Your task to perform on an android device: Add razer huntsman to the cart on walmart, then select checkout. Image 0: 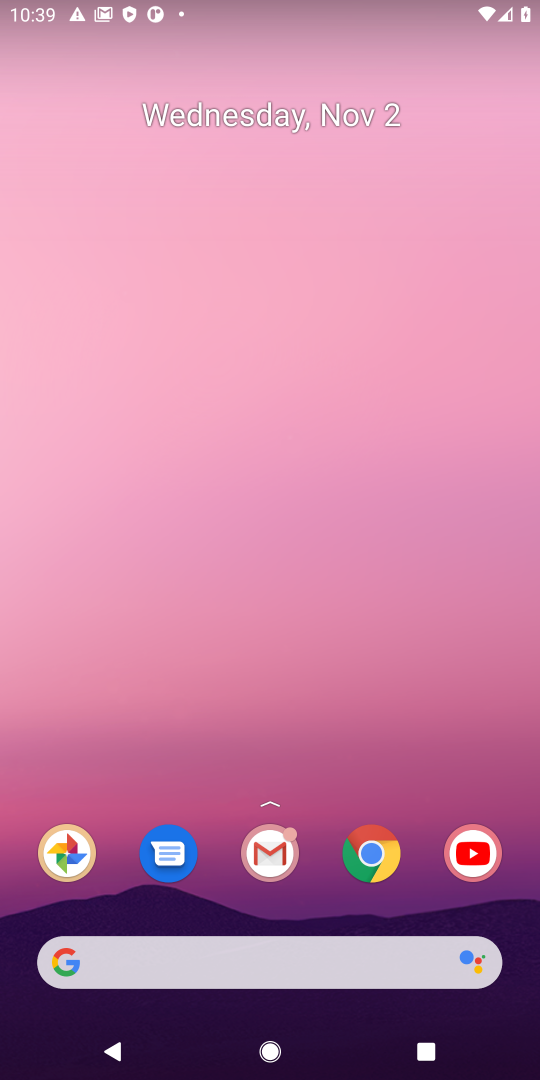
Step 0: click (368, 847)
Your task to perform on an android device: Add razer huntsman to the cart on walmart, then select checkout. Image 1: 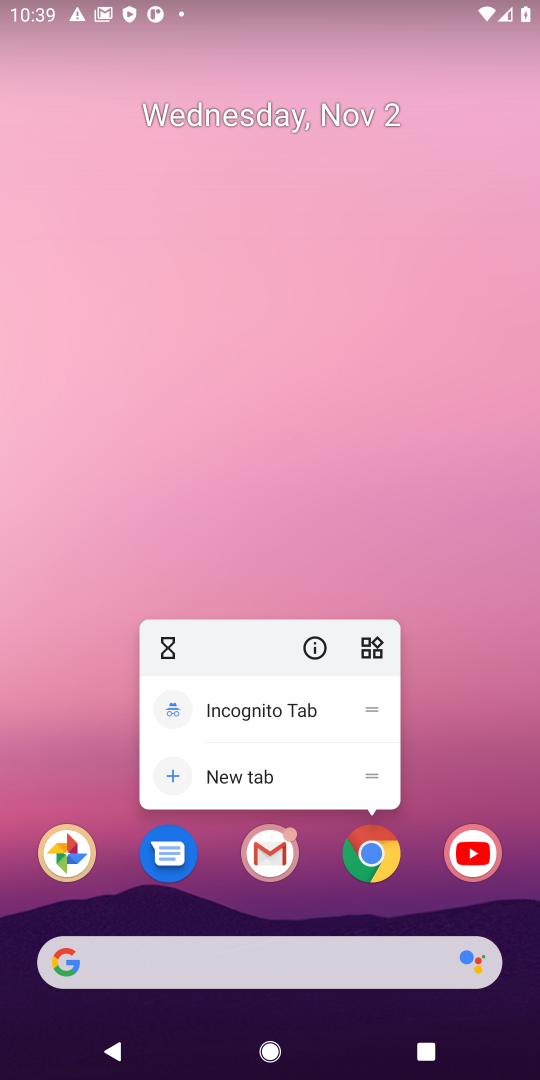
Step 1: click (368, 847)
Your task to perform on an android device: Add razer huntsman to the cart on walmart, then select checkout. Image 2: 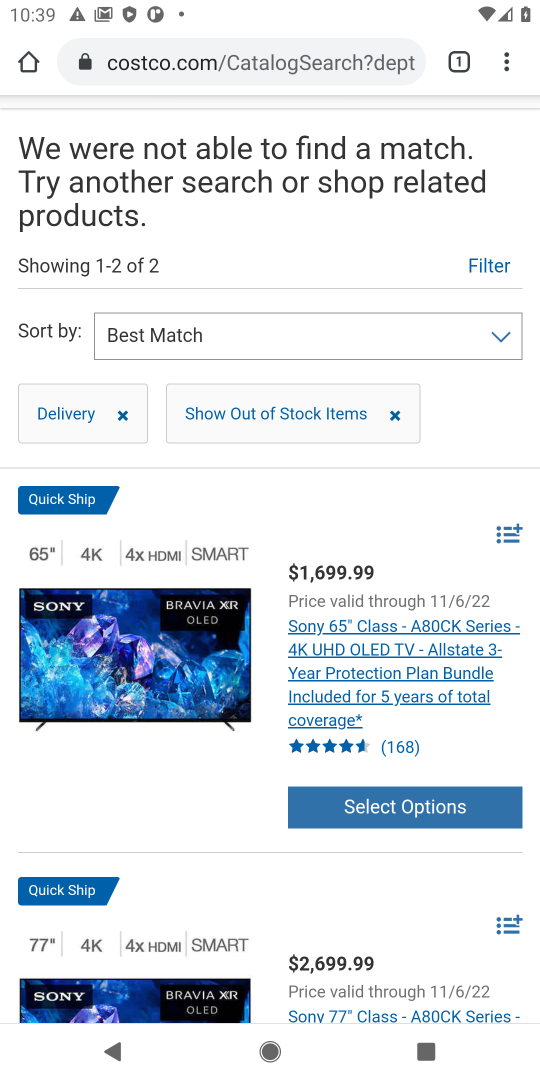
Step 2: click (288, 69)
Your task to perform on an android device: Add razer huntsman to the cart on walmart, then select checkout. Image 3: 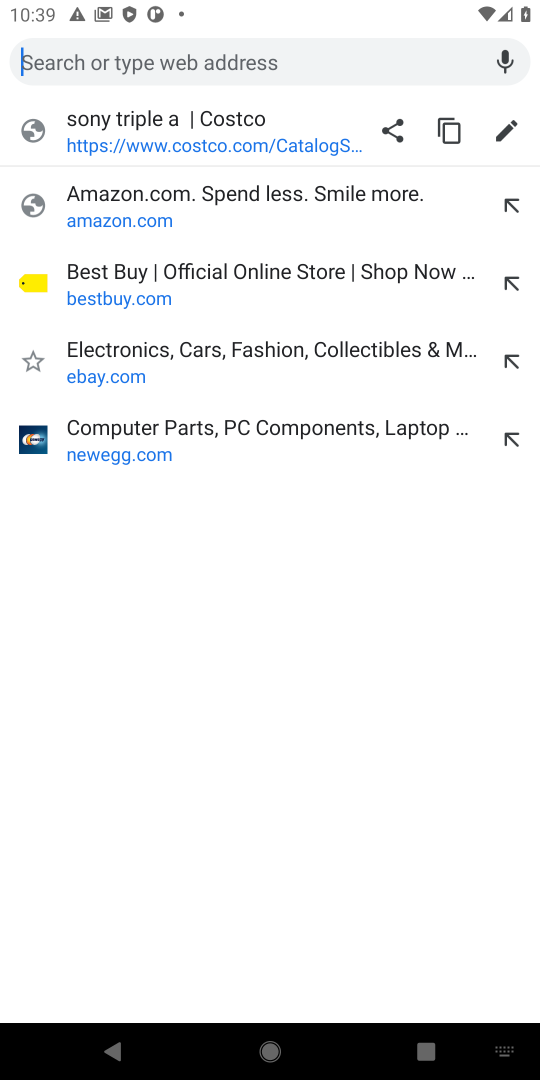
Step 3: type "walmart"
Your task to perform on an android device: Add razer huntsman to the cart on walmart, then select checkout. Image 4: 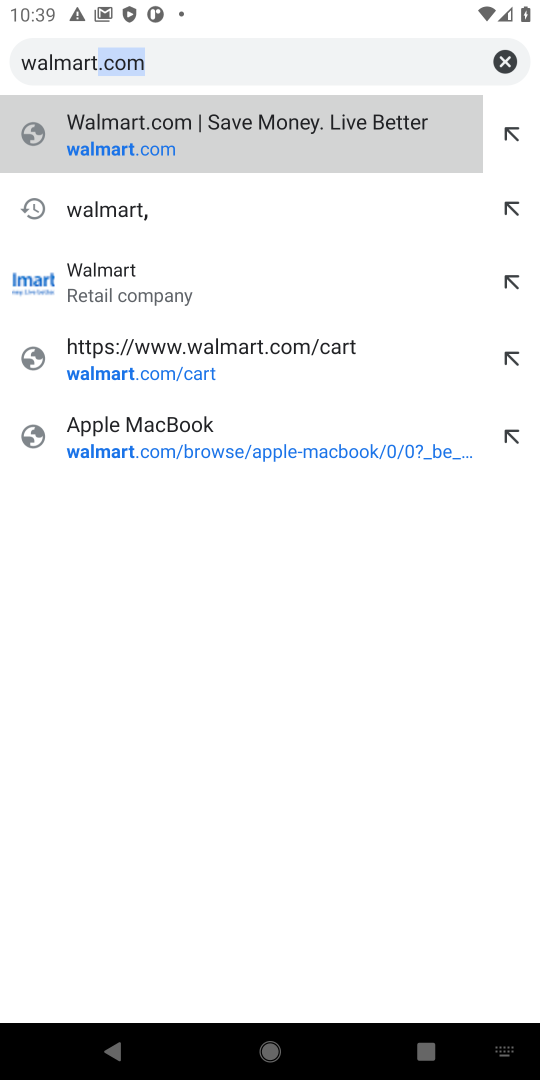
Step 4: press enter
Your task to perform on an android device: Add razer huntsman to the cart on walmart, then select checkout. Image 5: 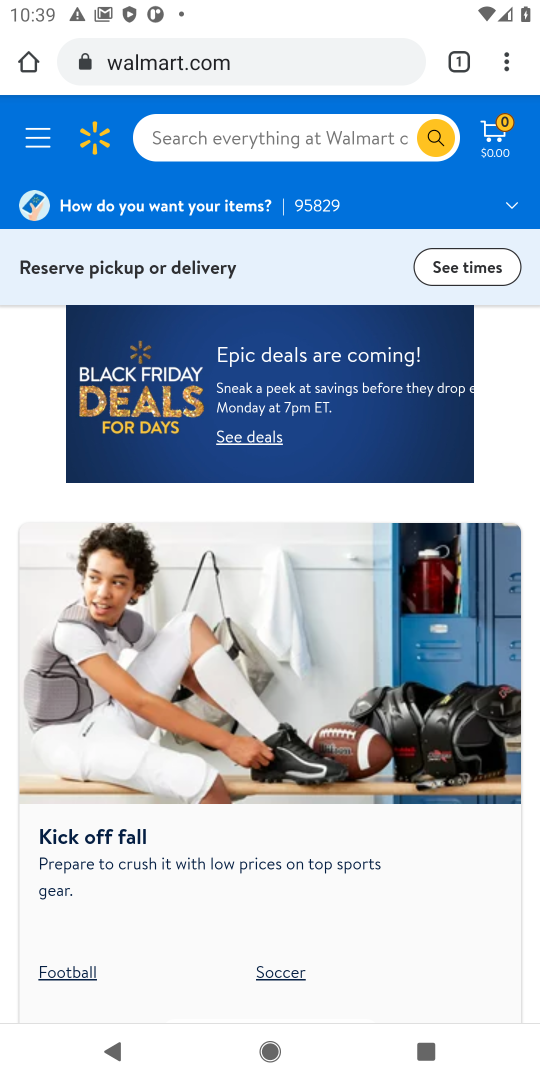
Step 5: click (346, 129)
Your task to perform on an android device: Add razer huntsman to the cart on walmart, then select checkout. Image 6: 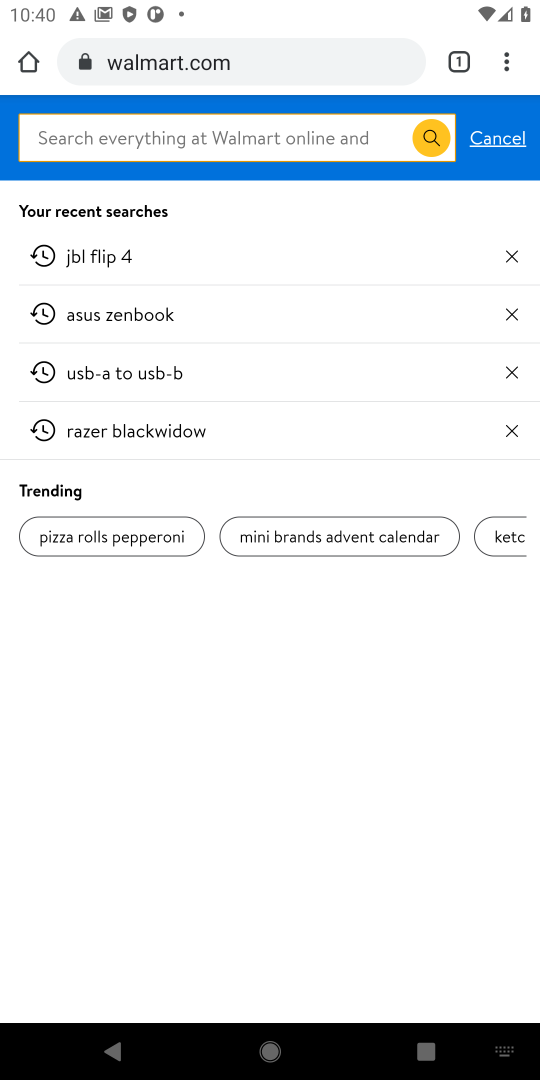
Step 6: type "razer huntsman"
Your task to perform on an android device: Add razer huntsman to the cart on walmart, then select checkout. Image 7: 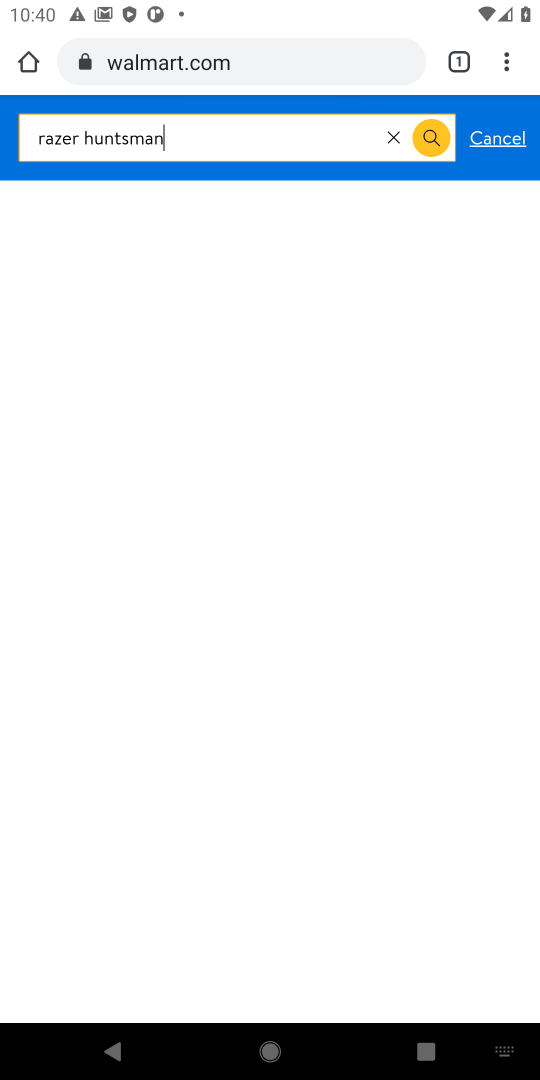
Step 7: press enter
Your task to perform on an android device: Add razer huntsman to the cart on walmart, then select checkout. Image 8: 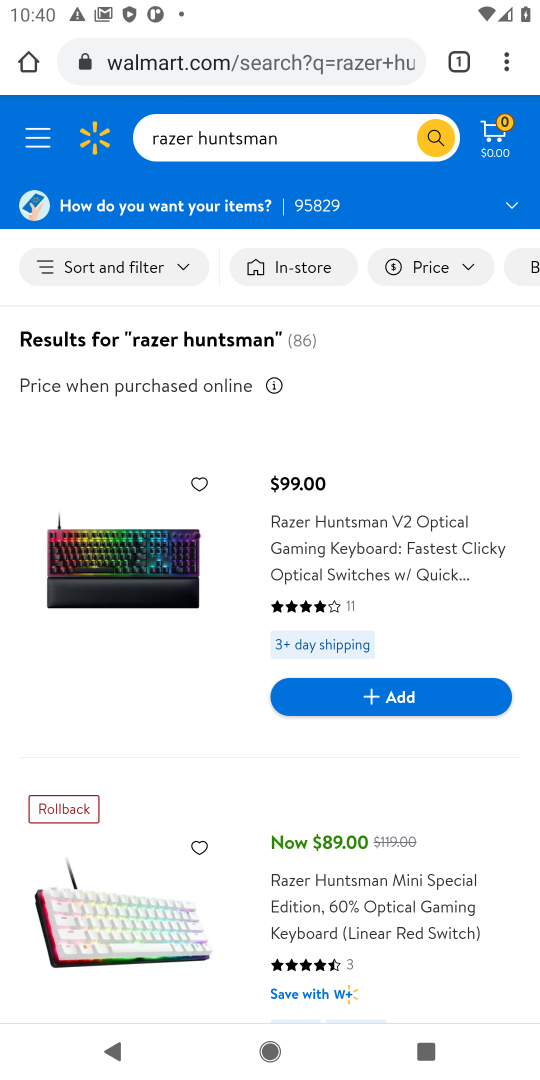
Step 8: click (350, 545)
Your task to perform on an android device: Add razer huntsman to the cart on walmart, then select checkout. Image 9: 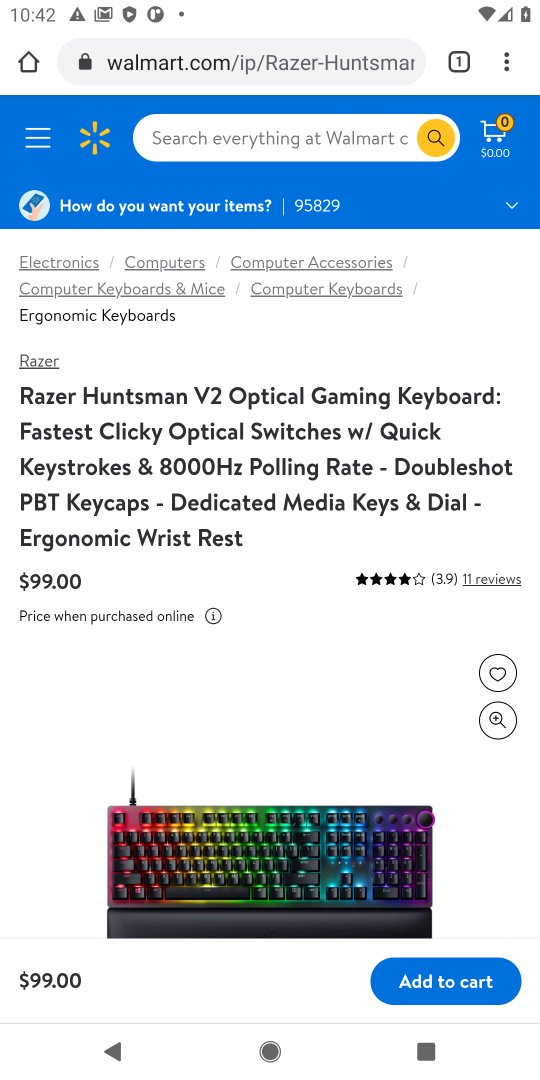
Step 9: drag from (166, 747) to (361, 329)
Your task to perform on an android device: Add razer huntsman to the cart on walmart, then select checkout. Image 10: 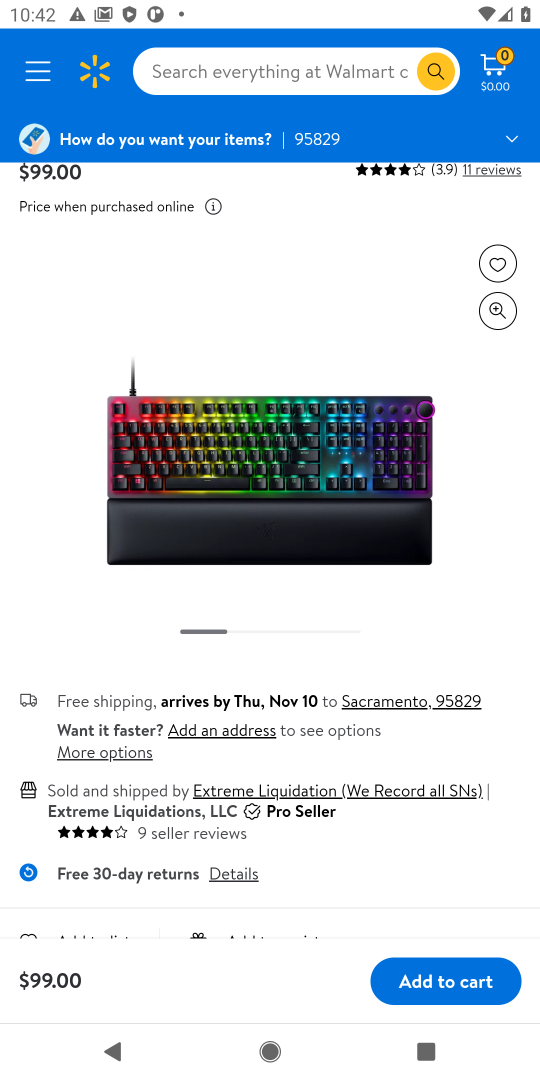
Step 10: click (453, 983)
Your task to perform on an android device: Add razer huntsman to the cart on walmart, then select checkout. Image 11: 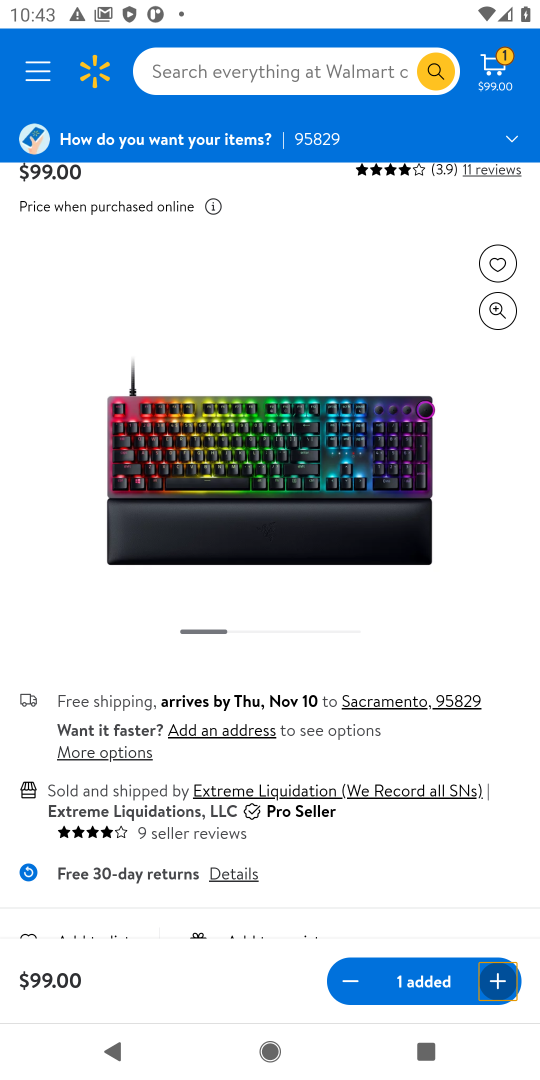
Step 11: click (502, 56)
Your task to perform on an android device: Add razer huntsman to the cart on walmart, then select checkout. Image 12: 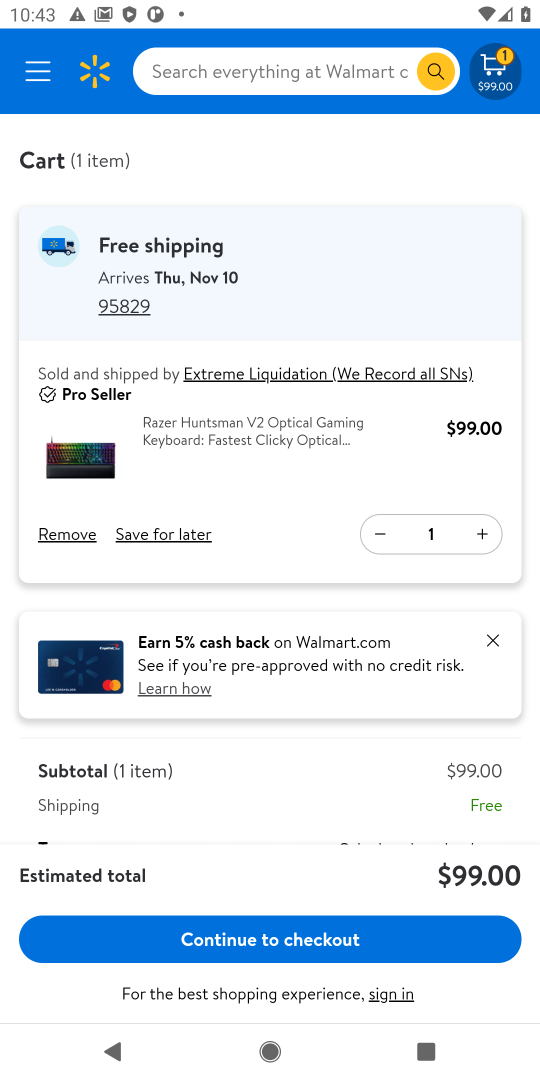
Step 12: click (256, 950)
Your task to perform on an android device: Add razer huntsman to the cart on walmart, then select checkout. Image 13: 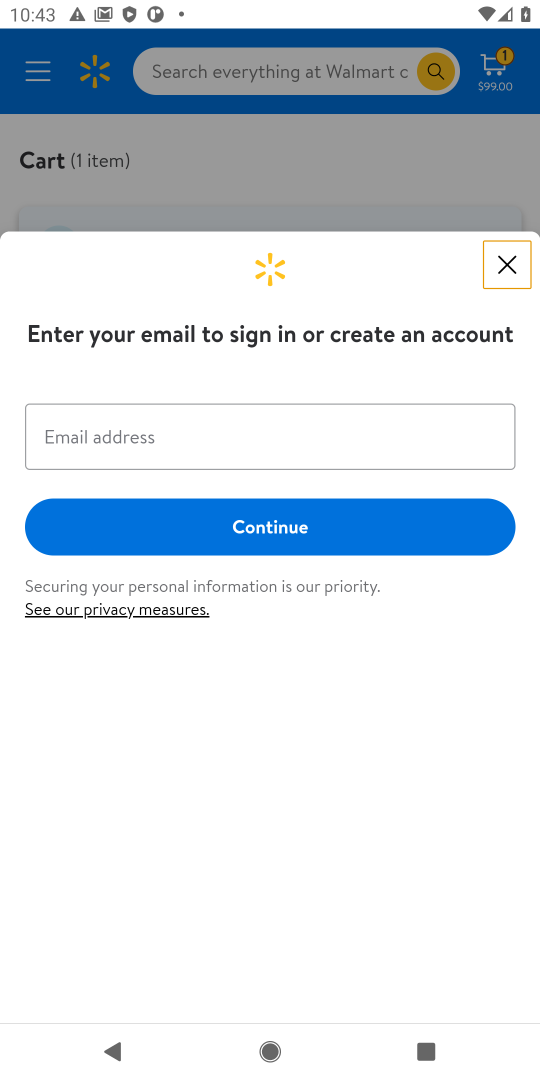
Step 13: task complete